Your task to perform on an android device: Search for vegetarian restaurants on Maps Image 0: 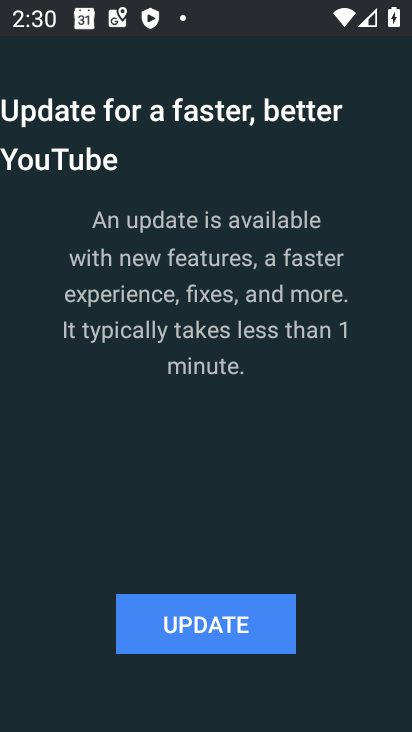
Step 0: press home button
Your task to perform on an android device: Search for vegetarian restaurants on Maps Image 1: 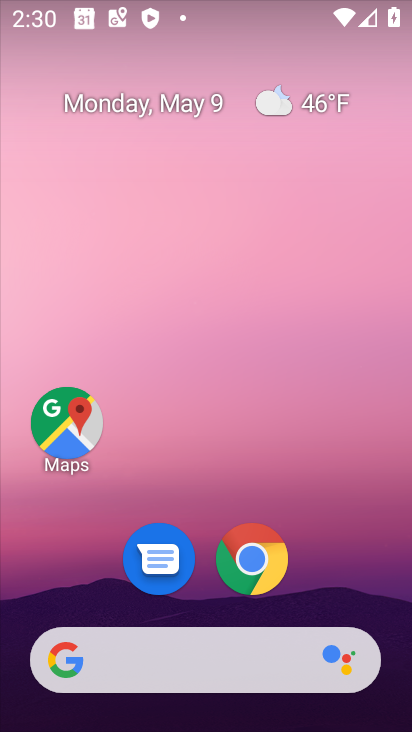
Step 1: click (54, 426)
Your task to perform on an android device: Search for vegetarian restaurants on Maps Image 2: 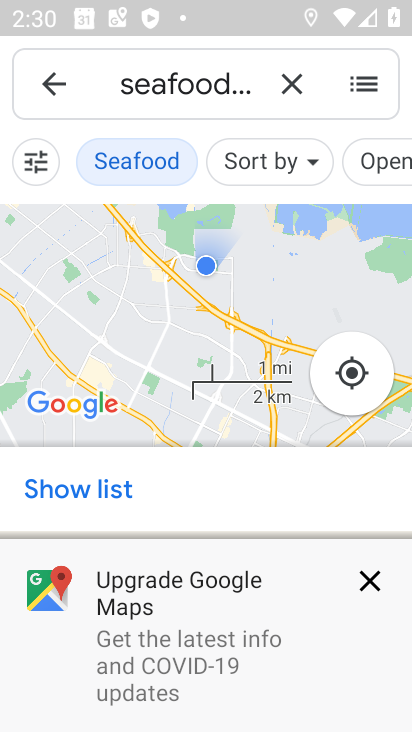
Step 2: click (292, 76)
Your task to perform on an android device: Search for vegetarian restaurants on Maps Image 3: 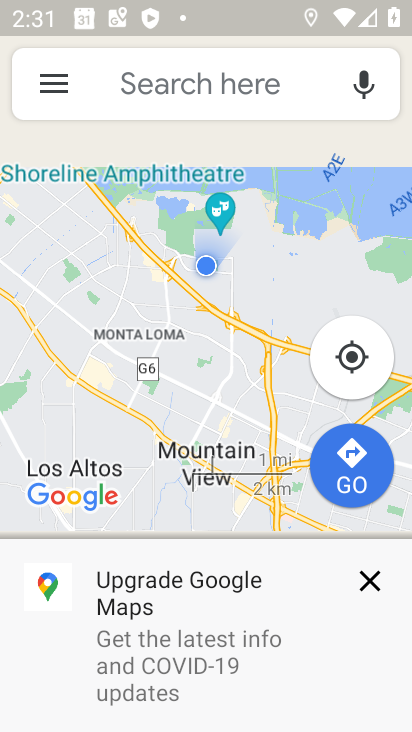
Step 3: click (227, 80)
Your task to perform on an android device: Search for vegetarian restaurants on Maps Image 4: 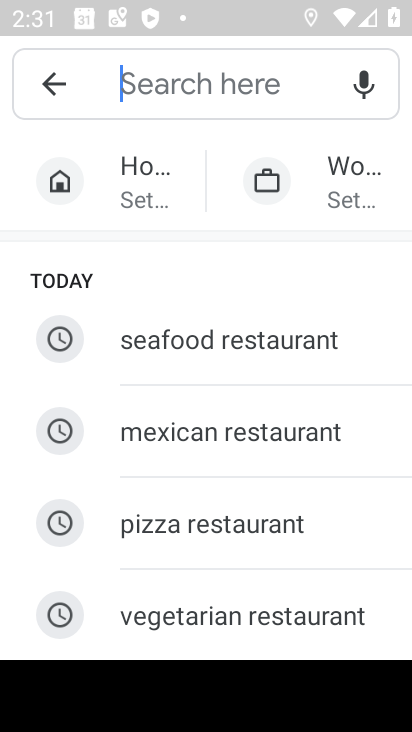
Step 4: click (259, 604)
Your task to perform on an android device: Search for vegetarian restaurants on Maps Image 5: 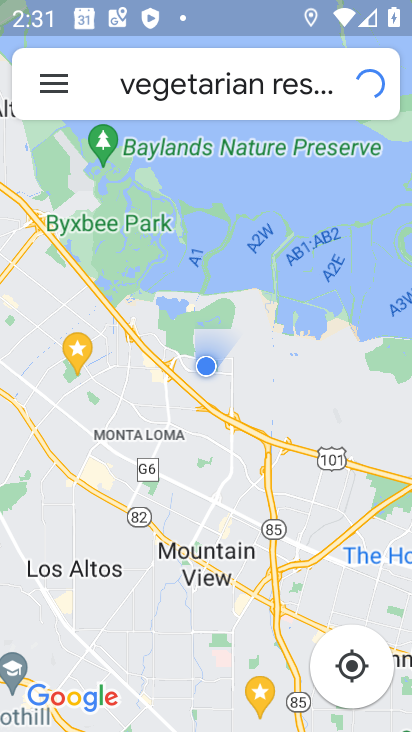
Step 5: task complete